Your task to perform on an android device: What is the news today? Image 0: 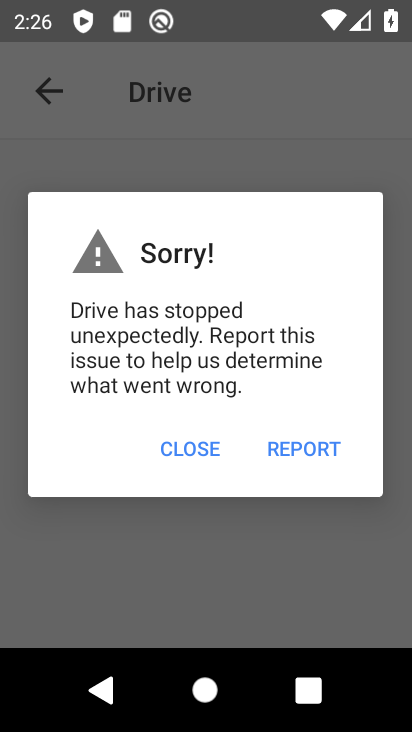
Step 0: press back button
Your task to perform on an android device: What is the news today? Image 1: 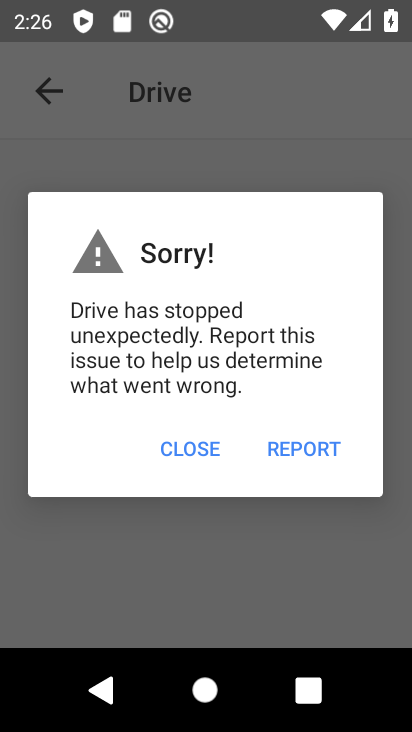
Step 1: press back button
Your task to perform on an android device: What is the news today? Image 2: 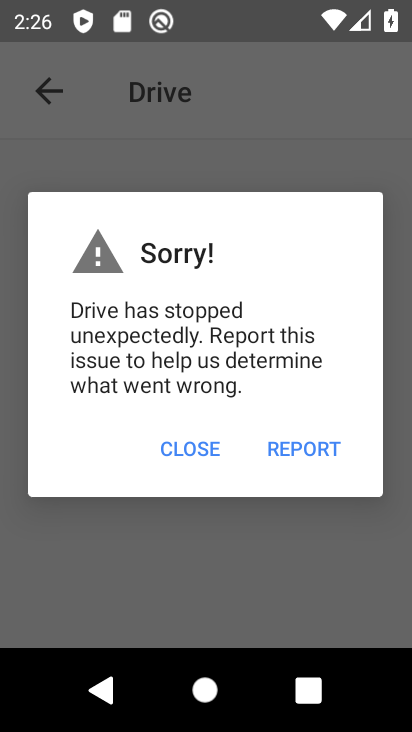
Step 2: press back button
Your task to perform on an android device: What is the news today? Image 3: 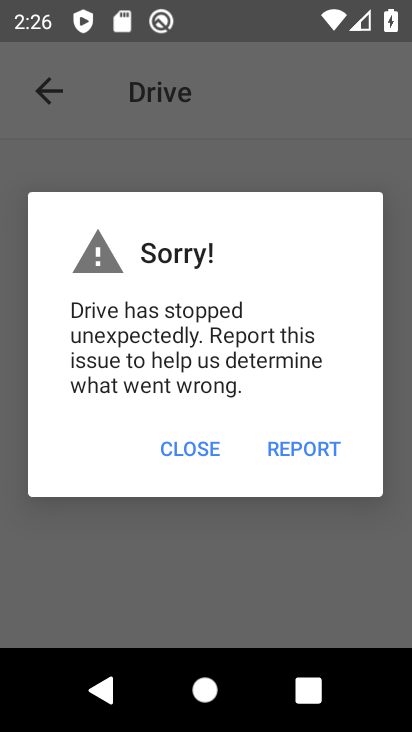
Step 3: press back button
Your task to perform on an android device: What is the news today? Image 4: 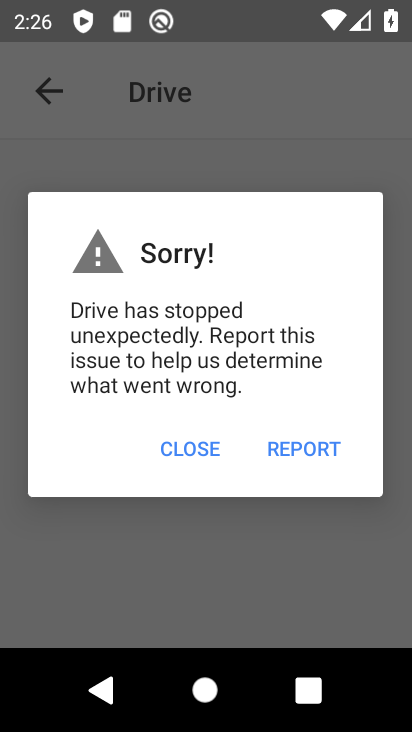
Step 4: press home button
Your task to perform on an android device: What is the news today? Image 5: 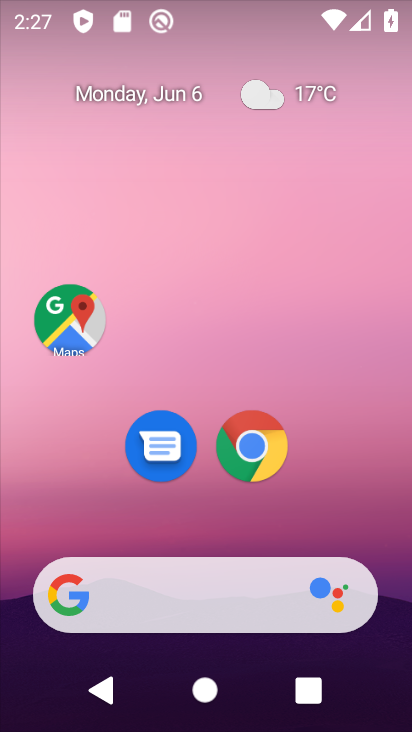
Step 5: click (208, 584)
Your task to perform on an android device: What is the news today? Image 6: 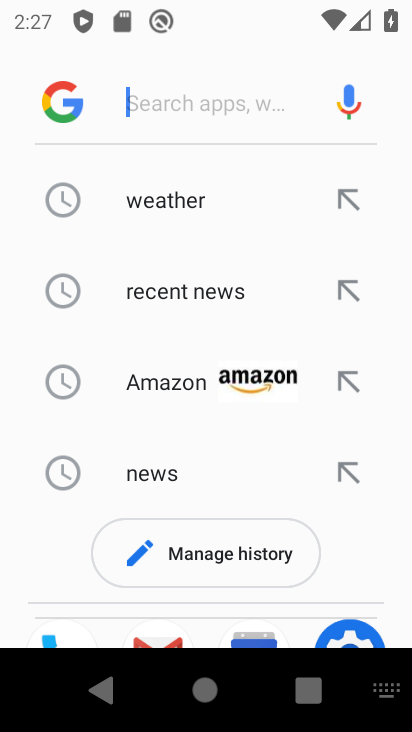
Step 6: type "news today"
Your task to perform on an android device: What is the news today? Image 7: 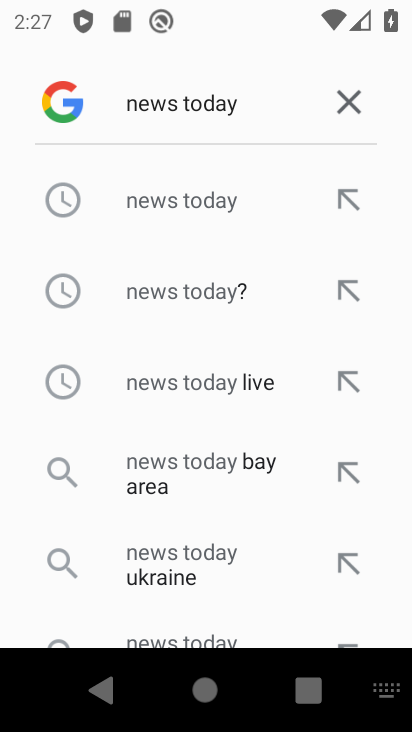
Step 7: click (173, 309)
Your task to perform on an android device: What is the news today? Image 8: 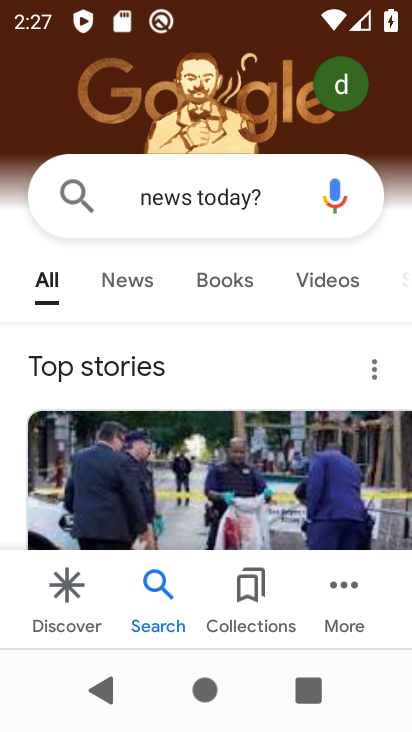
Step 8: task complete